Your task to perform on an android device: Turn on the flashlight Image 0: 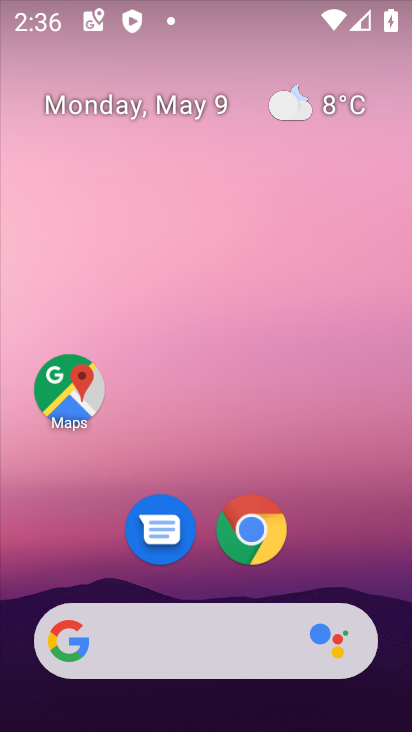
Step 0: drag from (229, 50) to (330, 564)
Your task to perform on an android device: Turn on the flashlight Image 1: 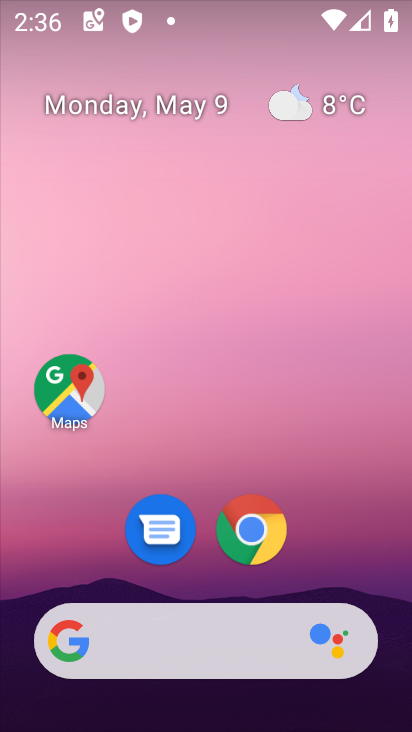
Step 1: task complete